Your task to perform on an android device: see sites visited before in the chrome app Image 0: 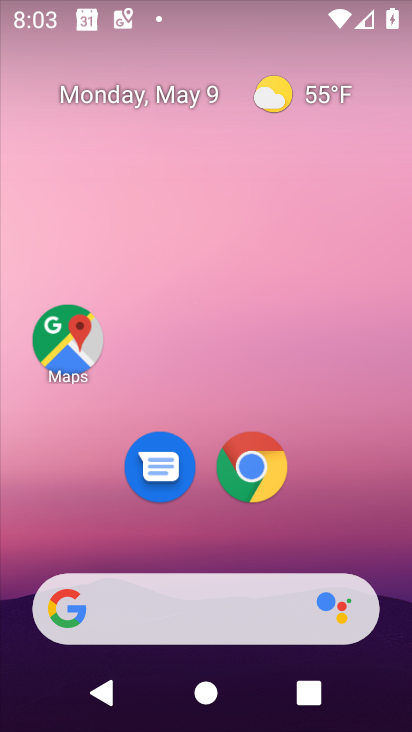
Step 0: click (258, 476)
Your task to perform on an android device: see sites visited before in the chrome app Image 1: 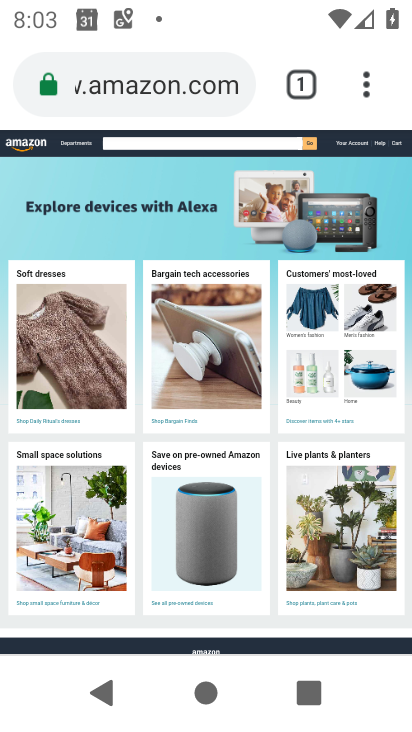
Step 1: task complete